Your task to perform on an android device: install app "Roku - Official Remote Control" Image 0: 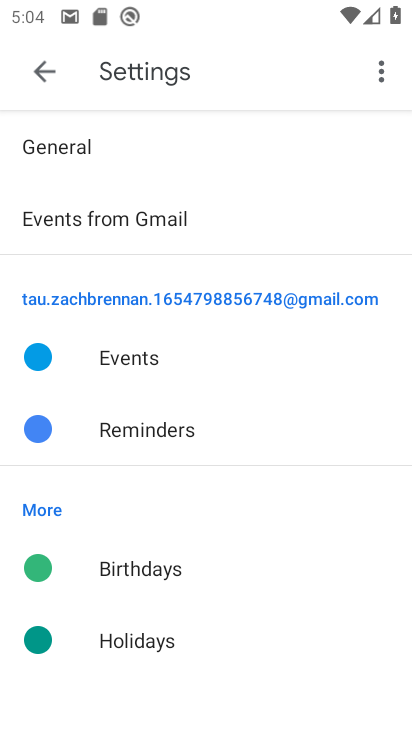
Step 0: press home button
Your task to perform on an android device: install app "Roku - Official Remote Control" Image 1: 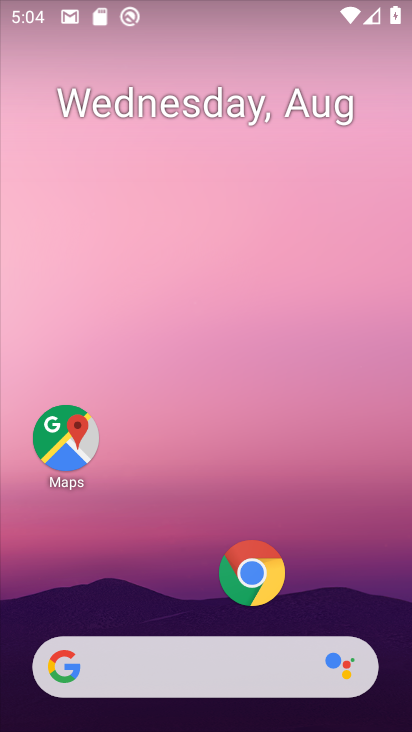
Step 1: drag from (175, 601) to (183, 6)
Your task to perform on an android device: install app "Roku - Official Remote Control" Image 2: 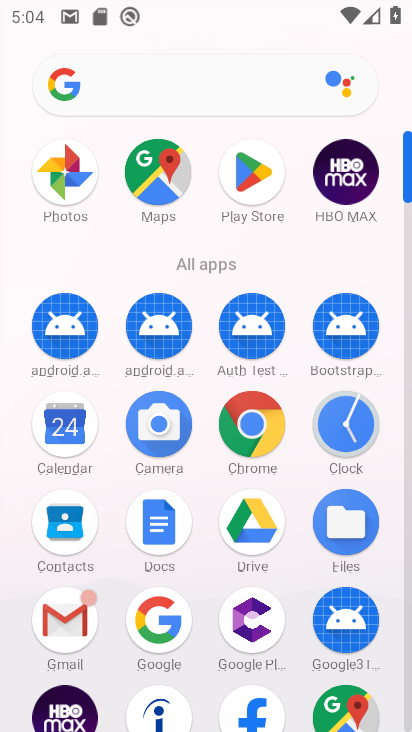
Step 2: click (248, 184)
Your task to perform on an android device: install app "Roku - Official Remote Control" Image 3: 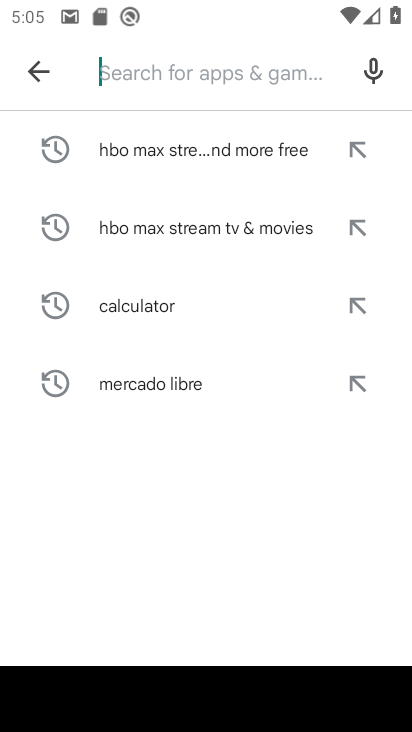
Step 3: type "Roku"
Your task to perform on an android device: install app "Roku - Official Remote Control" Image 4: 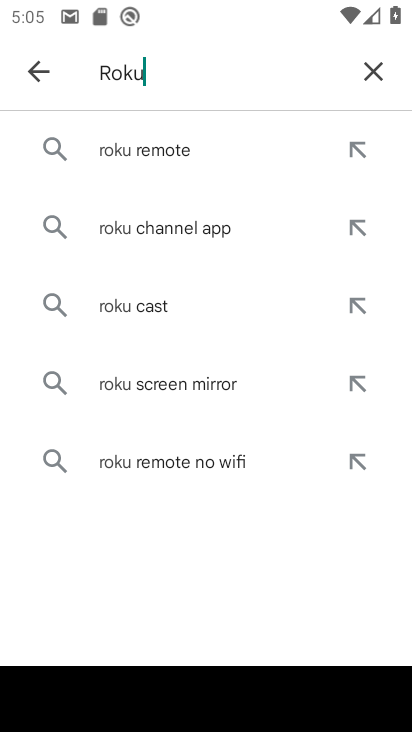
Step 4: click (169, 153)
Your task to perform on an android device: install app "Roku - Official Remote Control" Image 5: 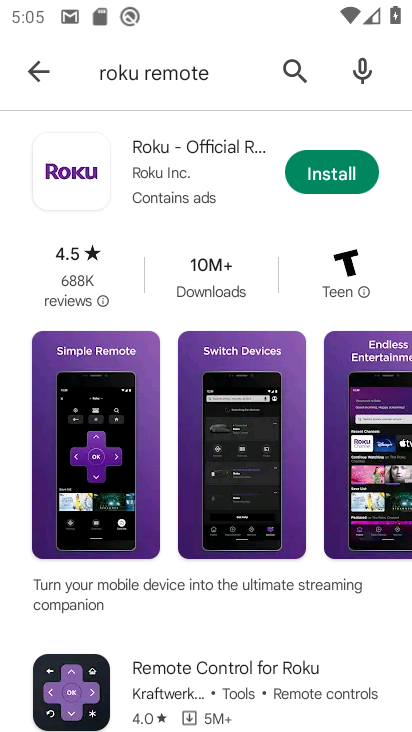
Step 5: click (333, 179)
Your task to perform on an android device: install app "Roku - Official Remote Control" Image 6: 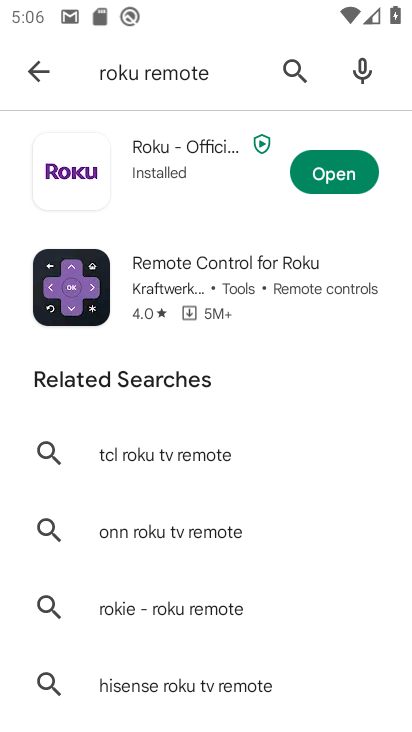
Step 6: click (333, 179)
Your task to perform on an android device: install app "Roku - Official Remote Control" Image 7: 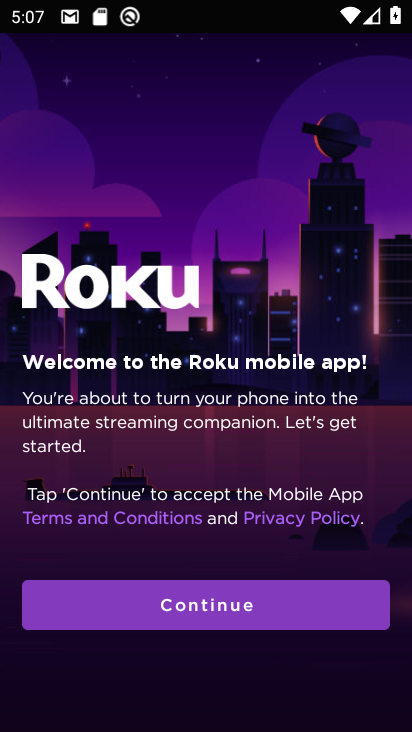
Step 7: task complete